Your task to perform on an android device: delete a single message in the gmail app Image 0: 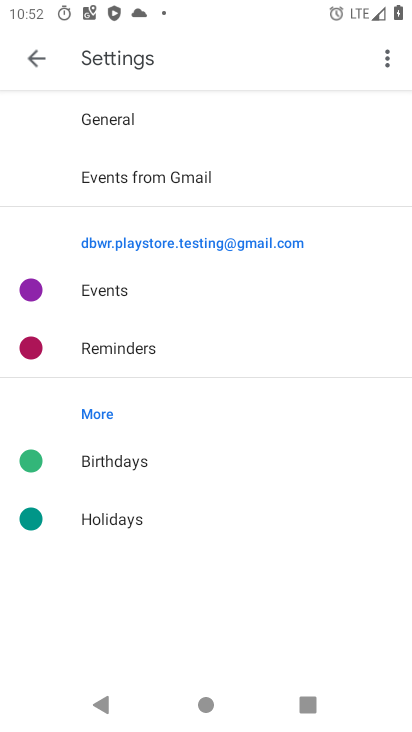
Step 0: press home button
Your task to perform on an android device: delete a single message in the gmail app Image 1: 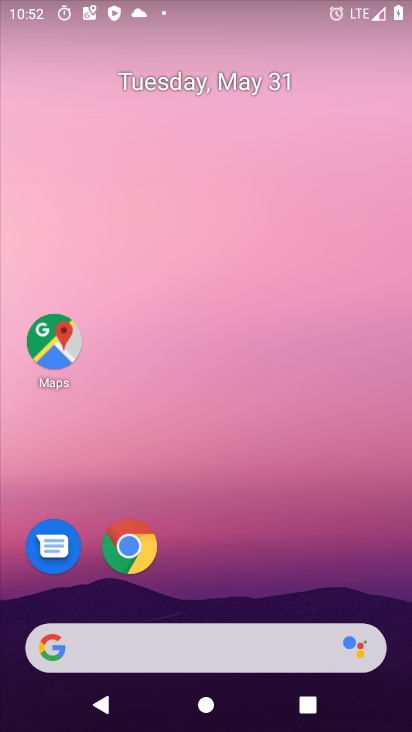
Step 1: drag from (227, 490) to (140, 113)
Your task to perform on an android device: delete a single message in the gmail app Image 2: 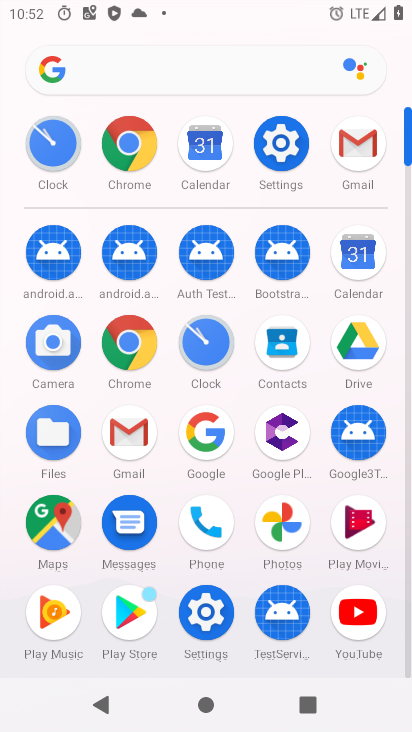
Step 2: click (341, 143)
Your task to perform on an android device: delete a single message in the gmail app Image 3: 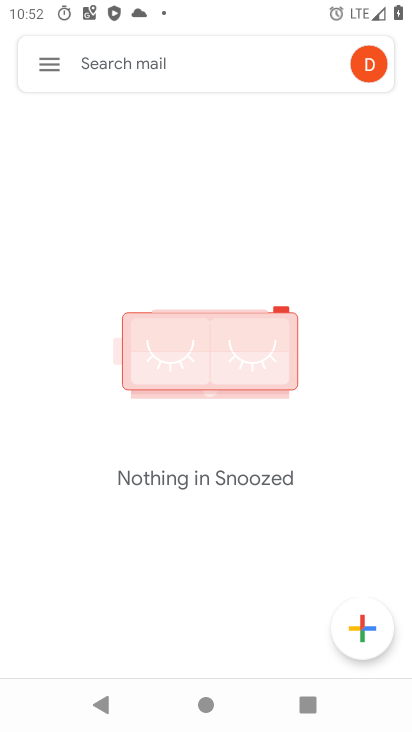
Step 3: click (37, 65)
Your task to perform on an android device: delete a single message in the gmail app Image 4: 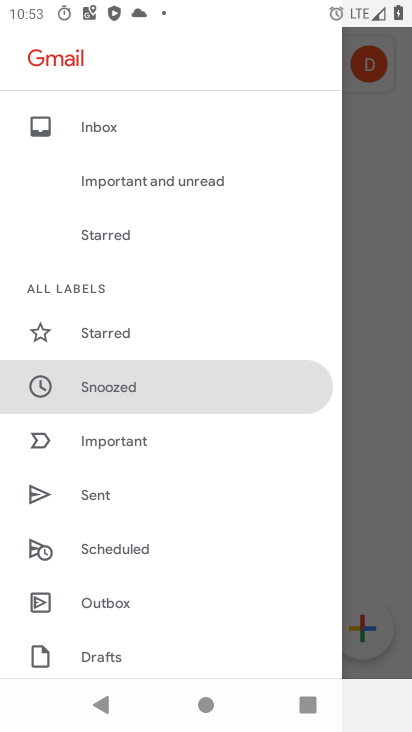
Step 4: click (316, 598)
Your task to perform on an android device: delete a single message in the gmail app Image 5: 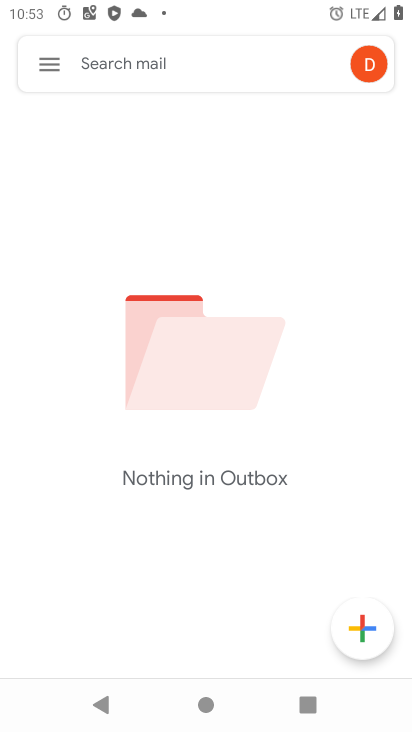
Step 5: task complete